Your task to perform on an android device: delete browsing data in the chrome app Image 0: 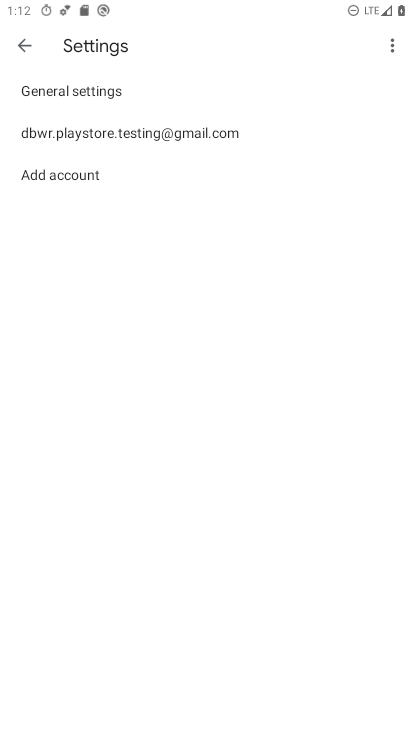
Step 0: press home button
Your task to perform on an android device: delete browsing data in the chrome app Image 1: 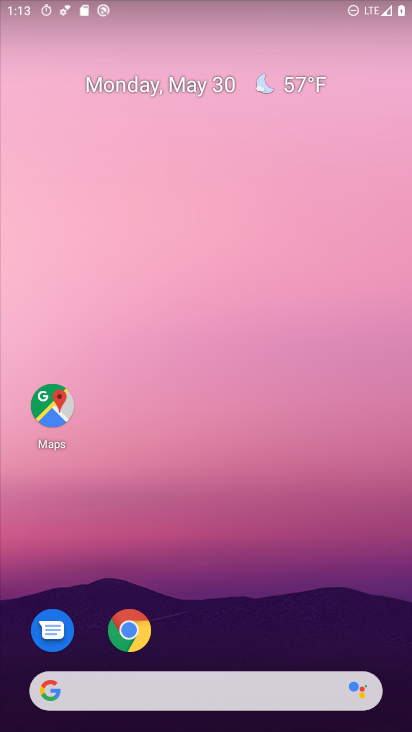
Step 1: drag from (247, 715) to (157, 100)
Your task to perform on an android device: delete browsing data in the chrome app Image 2: 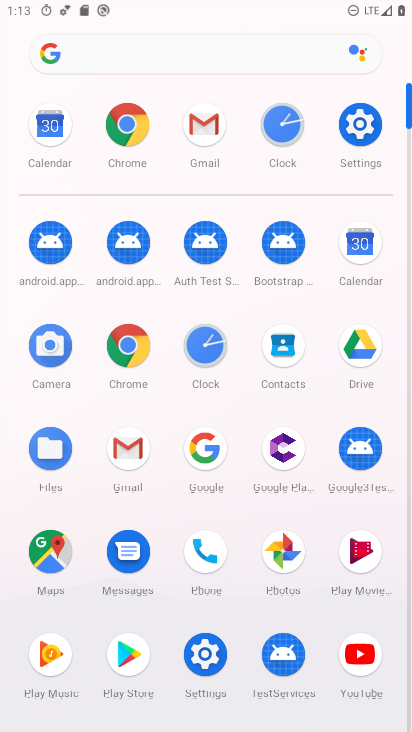
Step 2: click (114, 130)
Your task to perform on an android device: delete browsing data in the chrome app Image 3: 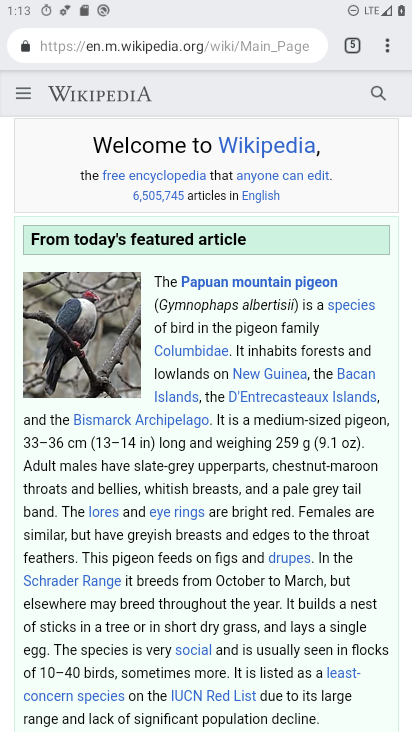
Step 3: click (384, 54)
Your task to perform on an android device: delete browsing data in the chrome app Image 4: 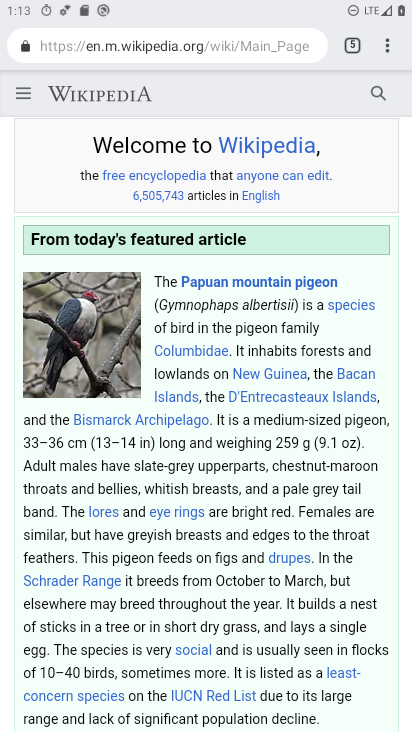
Step 4: click (384, 61)
Your task to perform on an android device: delete browsing data in the chrome app Image 5: 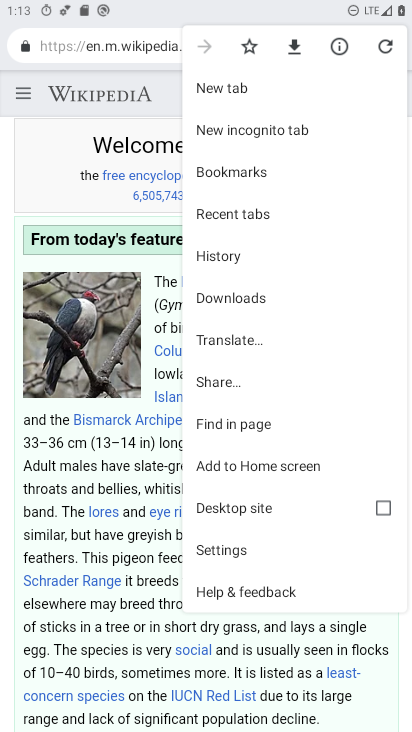
Step 5: click (237, 548)
Your task to perform on an android device: delete browsing data in the chrome app Image 6: 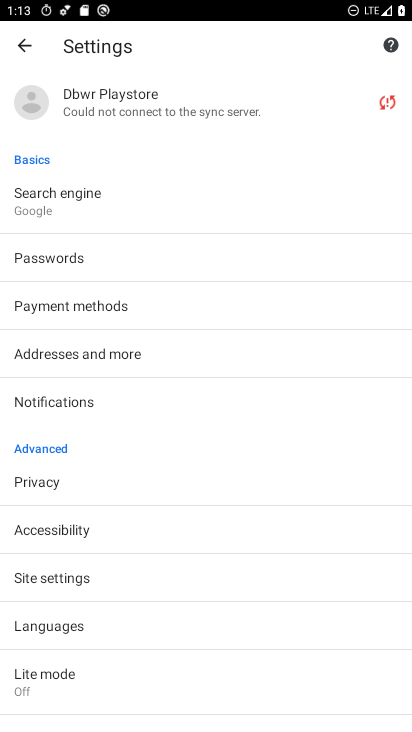
Step 6: drag from (219, 599) to (223, 388)
Your task to perform on an android device: delete browsing data in the chrome app Image 7: 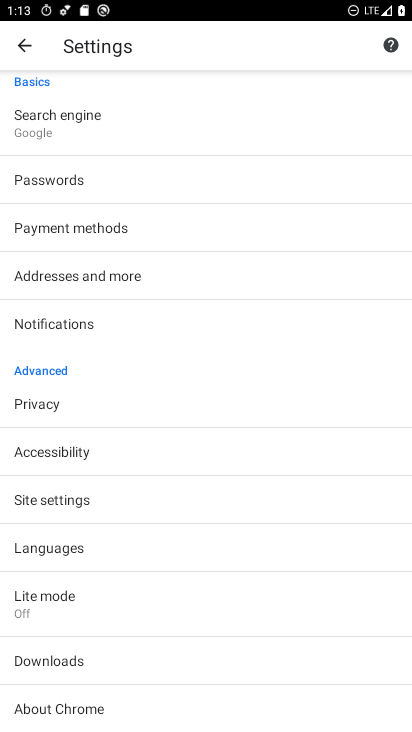
Step 7: click (70, 396)
Your task to perform on an android device: delete browsing data in the chrome app Image 8: 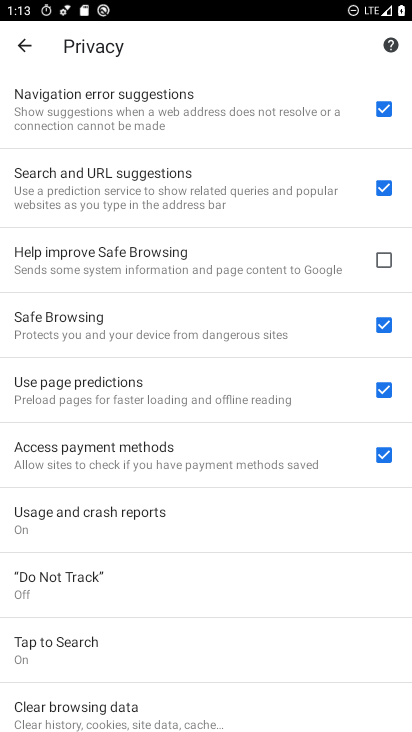
Step 8: click (156, 716)
Your task to perform on an android device: delete browsing data in the chrome app Image 9: 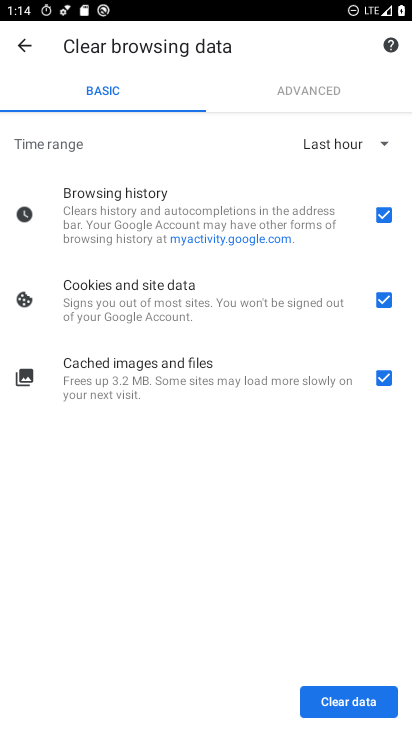
Step 9: click (374, 710)
Your task to perform on an android device: delete browsing data in the chrome app Image 10: 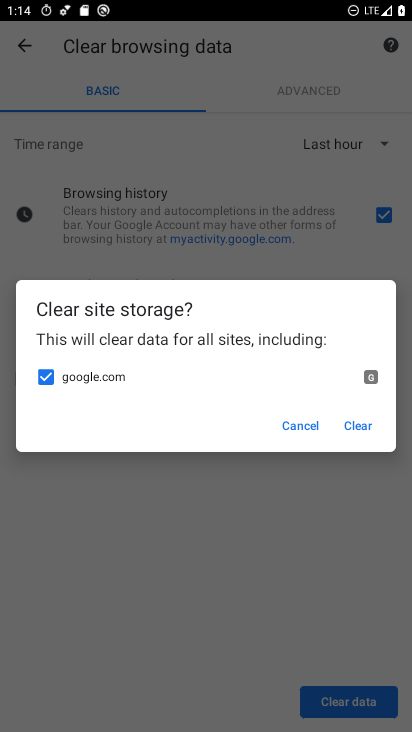
Step 10: task complete